Your task to perform on an android device: change the upload size in google photos Image 0: 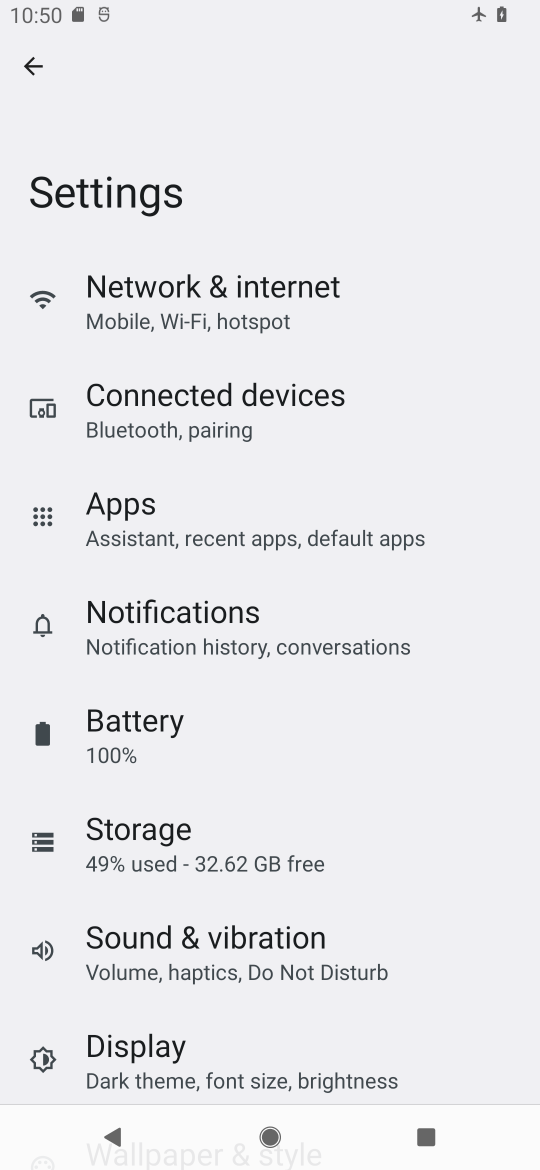
Step 0: press home button
Your task to perform on an android device: change the upload size in google photos Image 1: 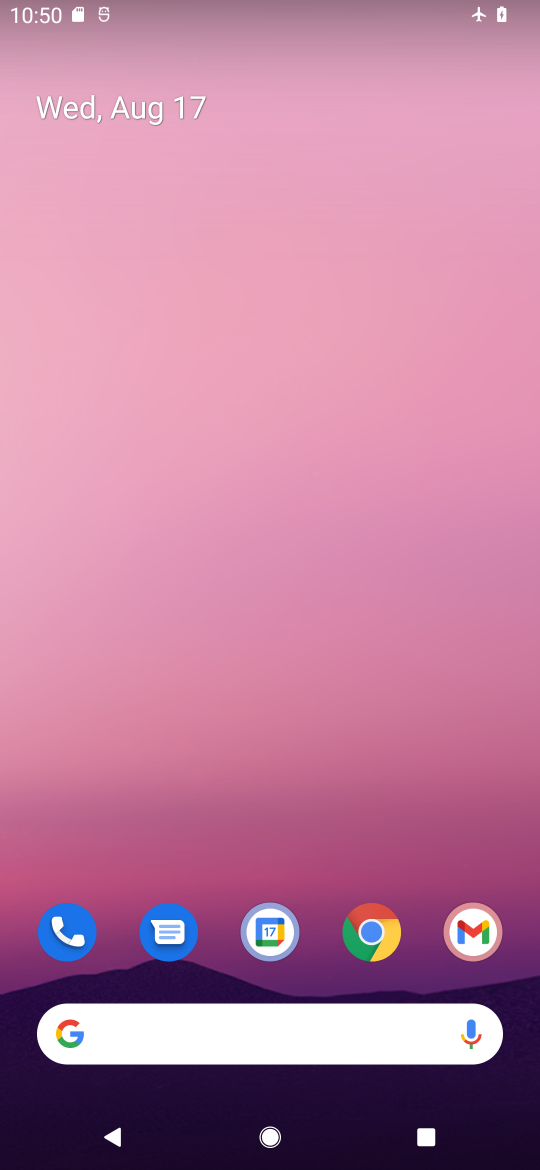
Step 1: drag from (322, 881) to (284, 34)
Your task to perform on an android device: change the upload size in google photos Image 2: 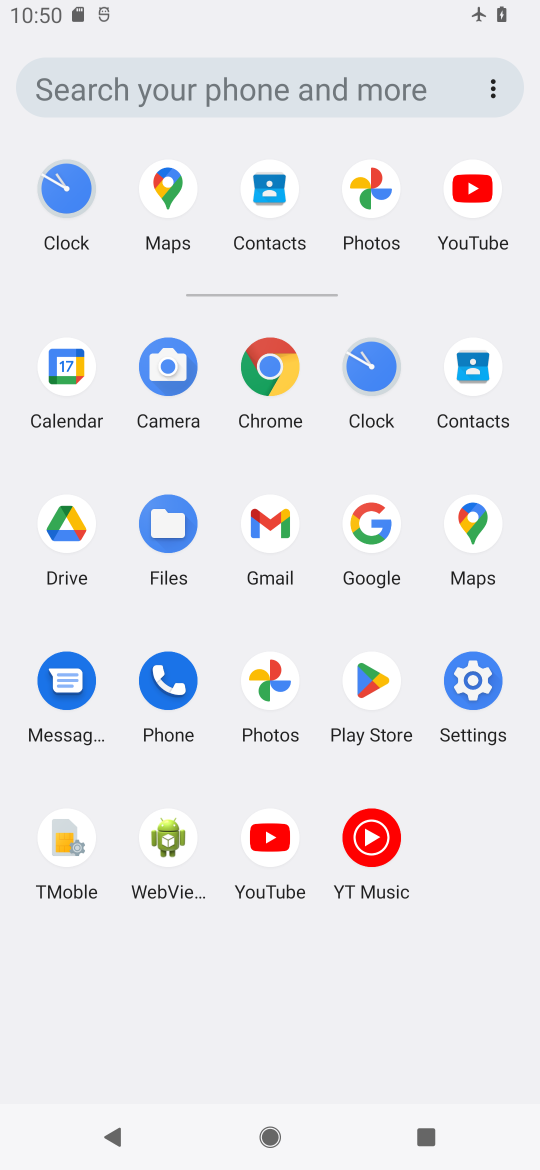
Step 2: click (268, 685)
Your task to perform on an android device: change the upload size in google photos Image 3: 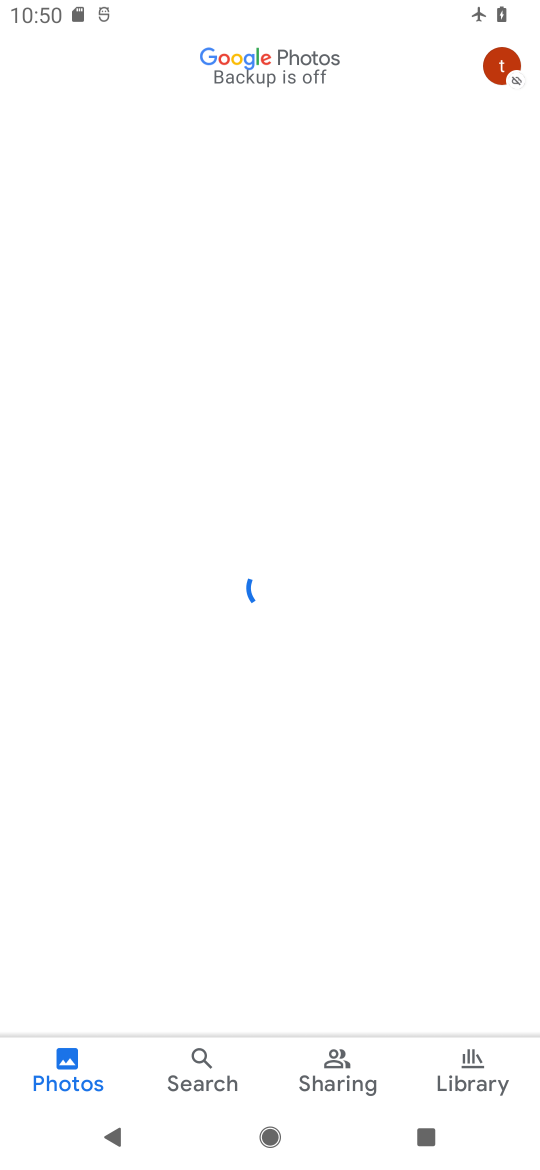
Step 3: click (502, 69)
Your task to perform on an android device: change the upload size in google photos Image 4: 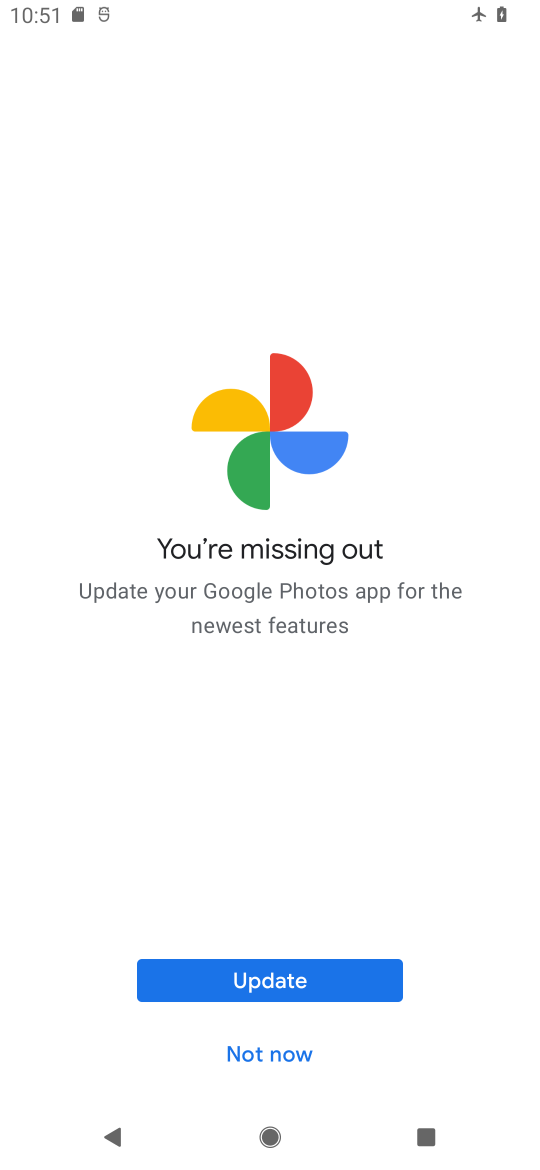
Step 4: click (250, 1052)
Your task to perform on an android device: change the upload size in google photos Image 5: 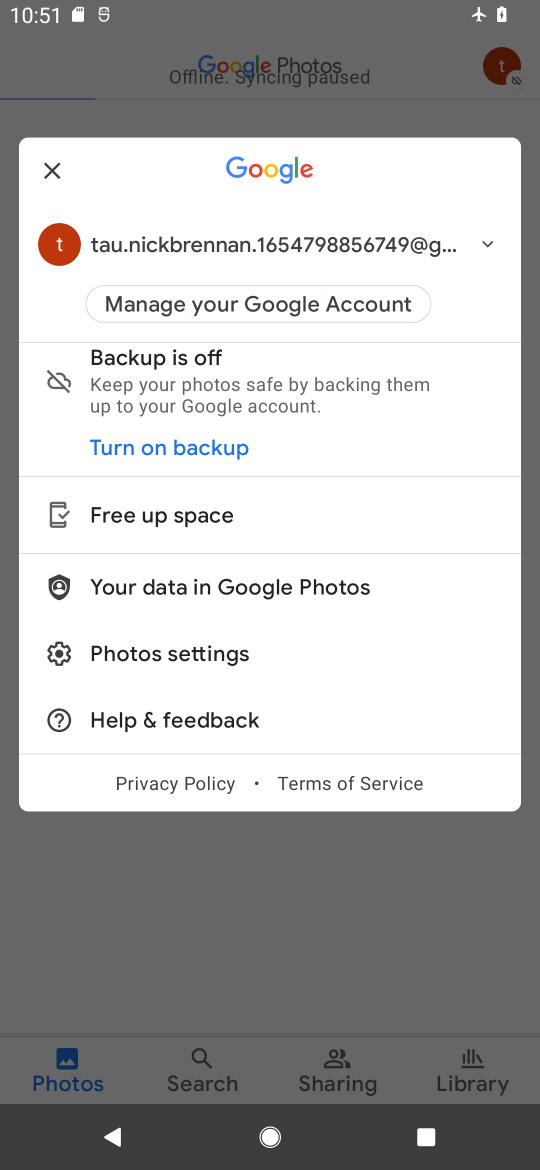
Step 5: click (207, 656)
Your task to perform on an android device: change the upload size in google photos Image 6: 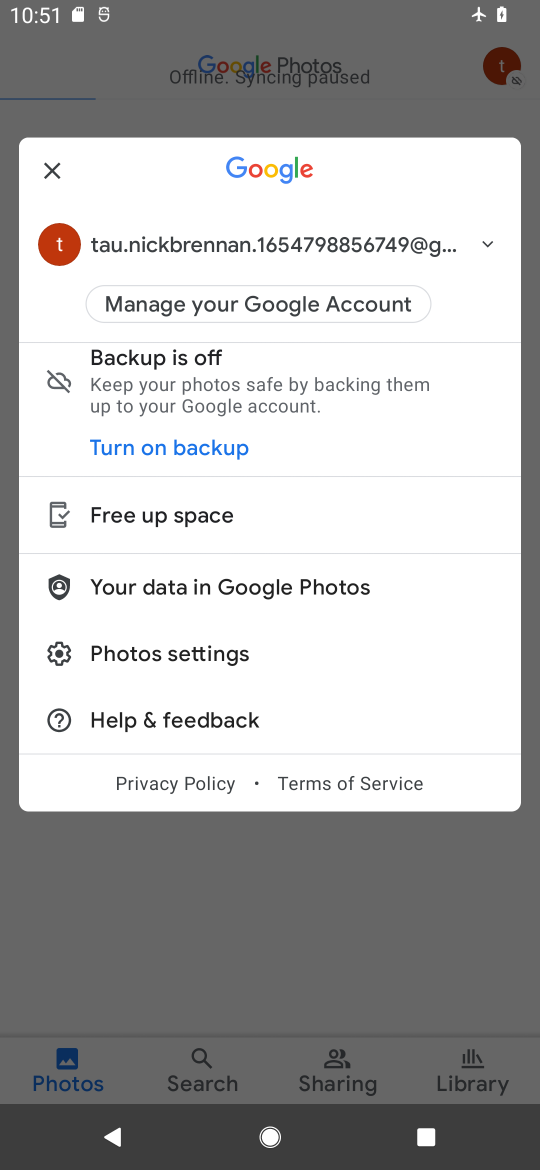
Step 6: click (177, 651)
Your task to perform on an android device: change the upload size in google photos Image 7: 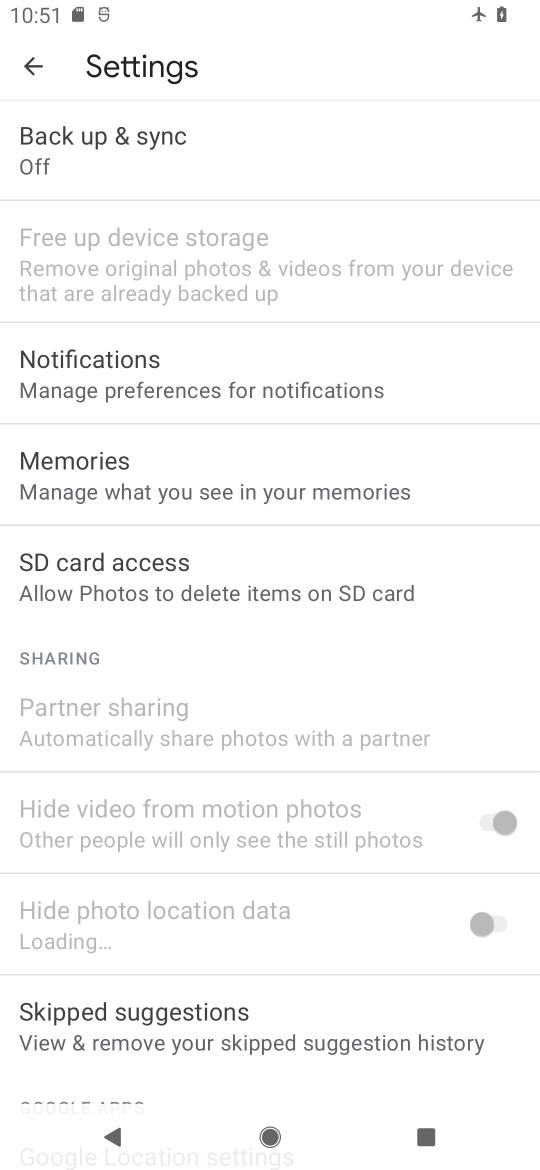
Step 7: click (51, 148)
Your task to perform on an android device: change the upload size in google photos Image 8: 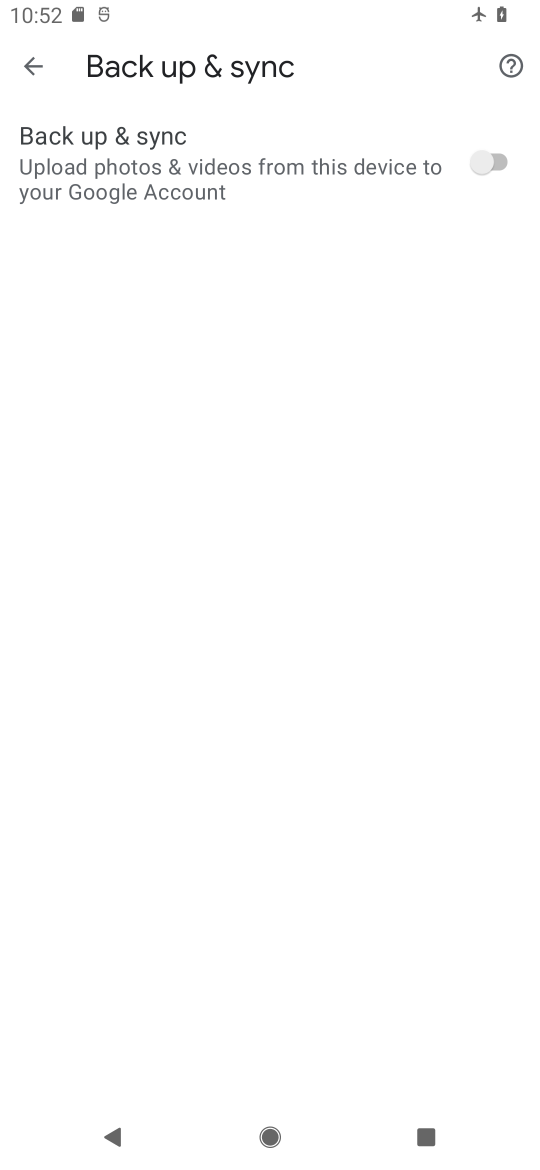
Step 8: click (485, 163)
Your task to perform on an android device: change the upload size in google photos Image 9: 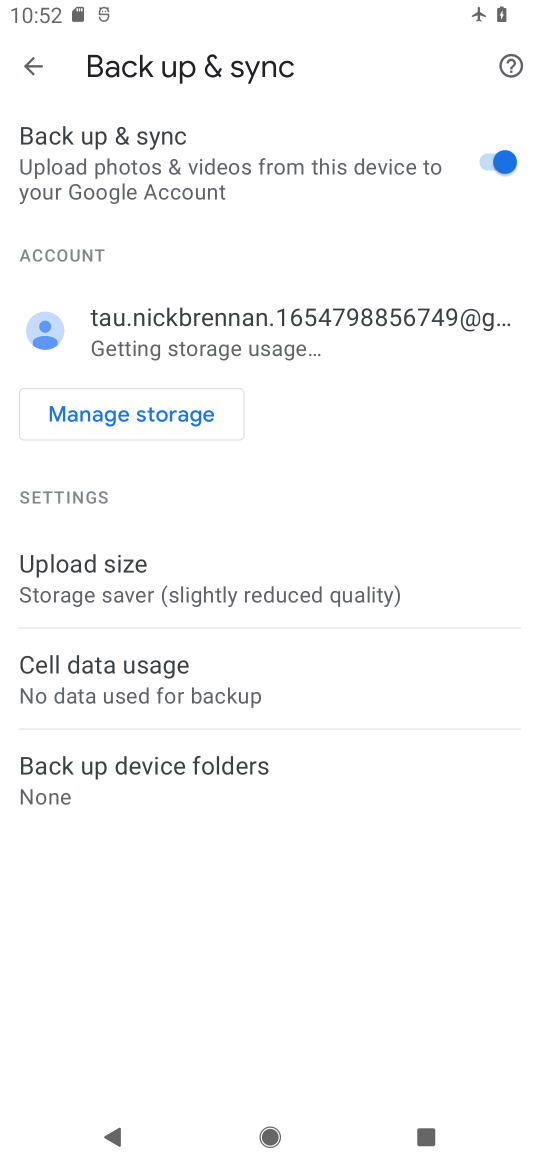
Step 9: click (120, 580)
Your task to perform on an android device: change the upload size in google photos Image 10: 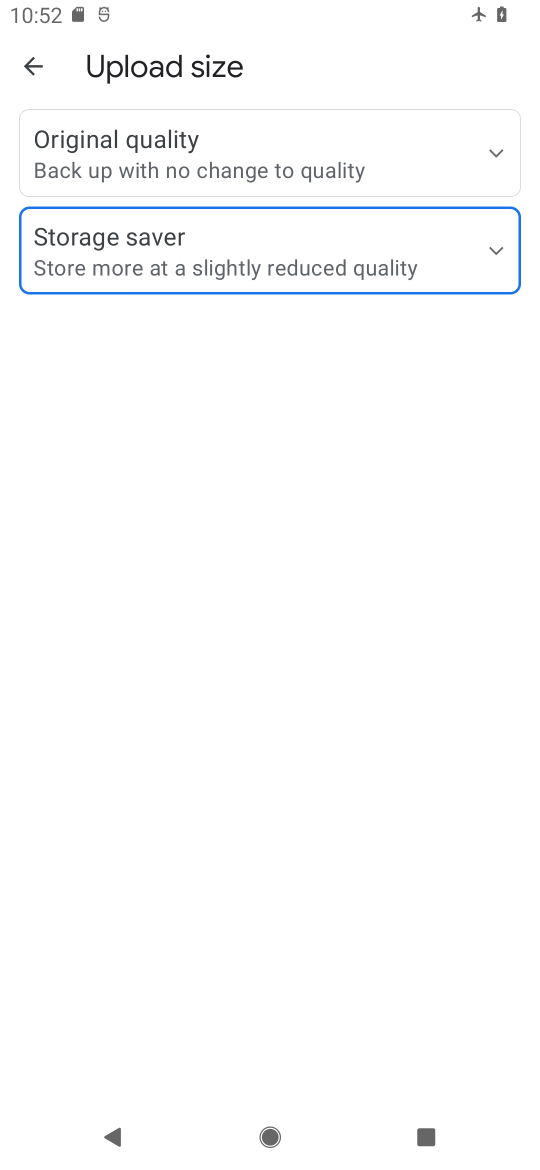
Step 10: click (169, 170)
Your task to perform on an android device: change the upload size in google photos Image 11: 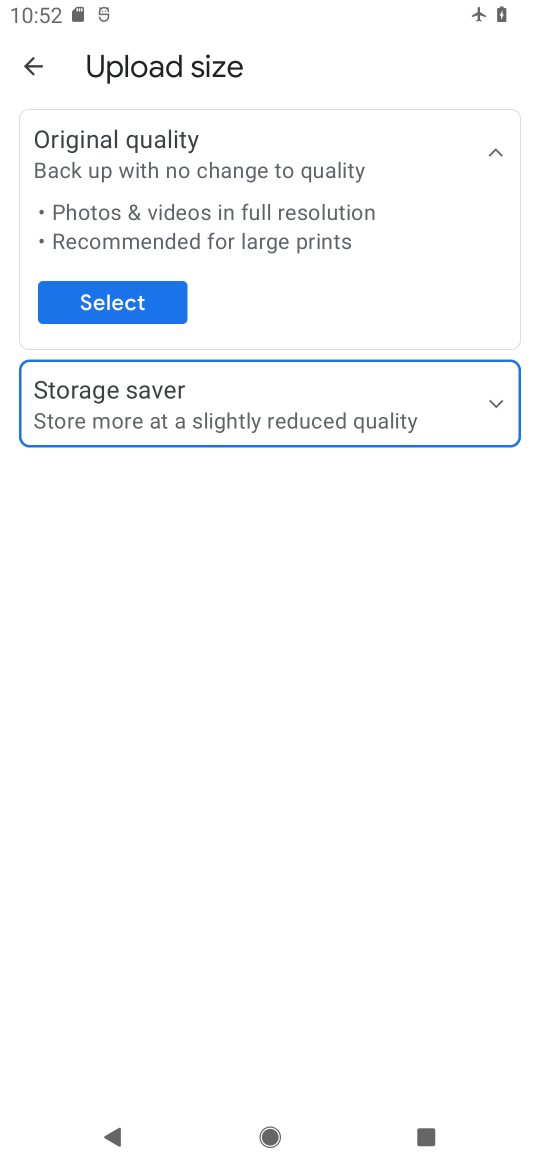
Step 11: click (125, 308)
Your task to perform on an android device: change the upload size in google photos Image 12: 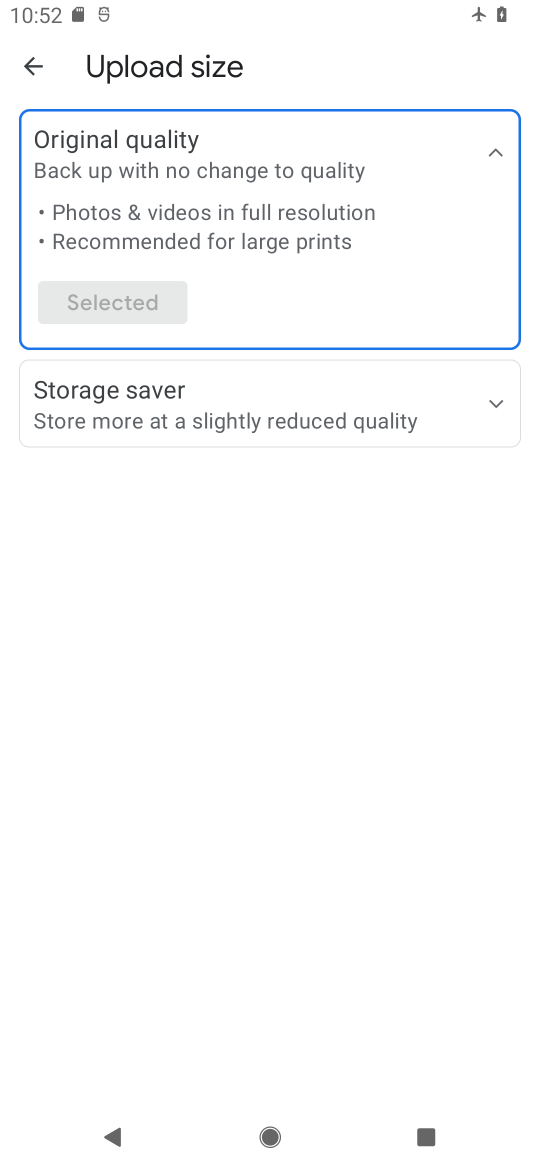
Step 12: task complete